Your task to perform on an android device: Do I have any events this weekend? Image 0: 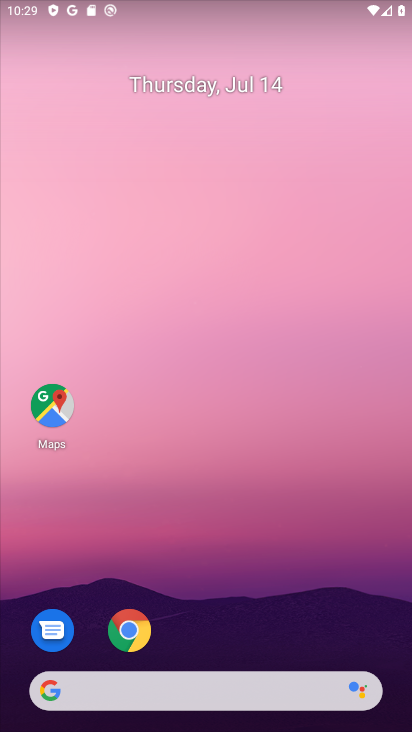
Step 0: drag from (286, 247) to (23, 69)
Your task to perform on an android device: Do I have any events this weekend? Image 1: 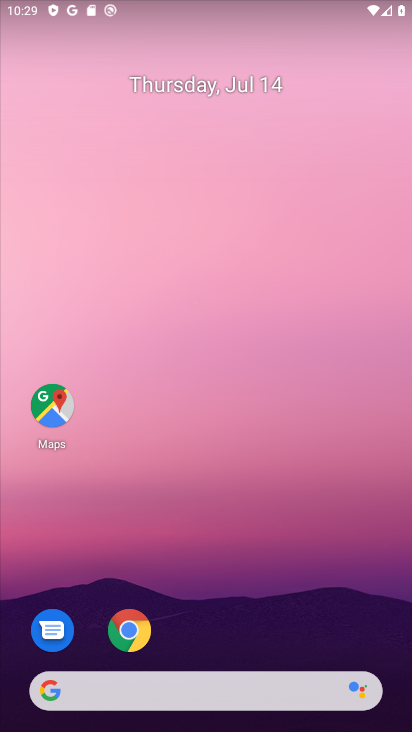
Step 1: drag from (287, 578) to (216, 0)
Your task to perform on an android device: Do I have any events this weekend? Image 2: 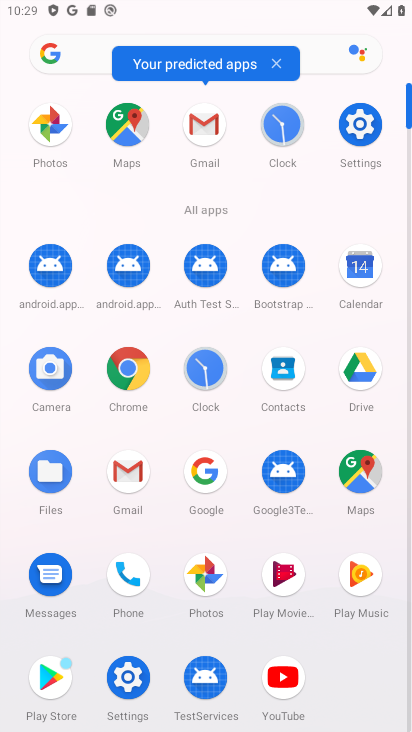
Step 2: click (352, 272)
Your task to perform on an android device: Do I have any events this weekend? Image 3: 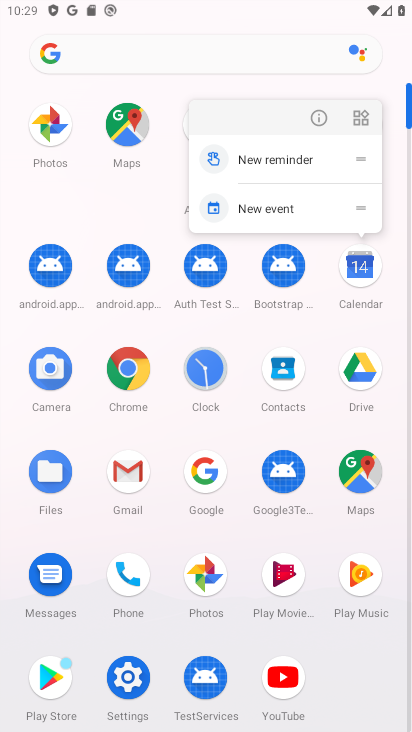
Step 3: click (352, 278)
Your task to perform on an android device: Do I have any events this weekend? Image 4: 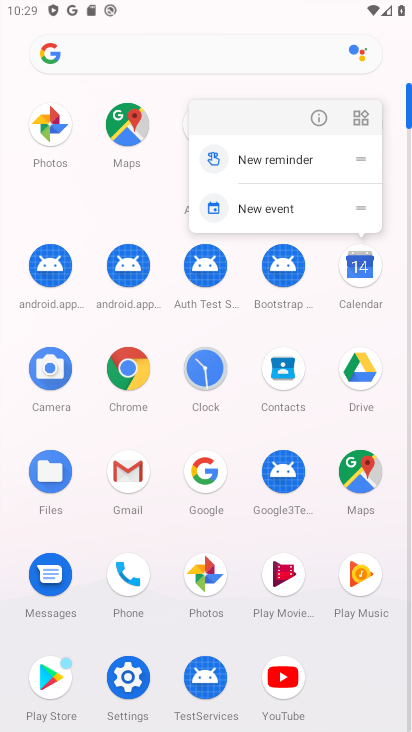
Step 4: click (359, 280)
Your task to perform on an android device: Do I have any events this weekend? Image 5: 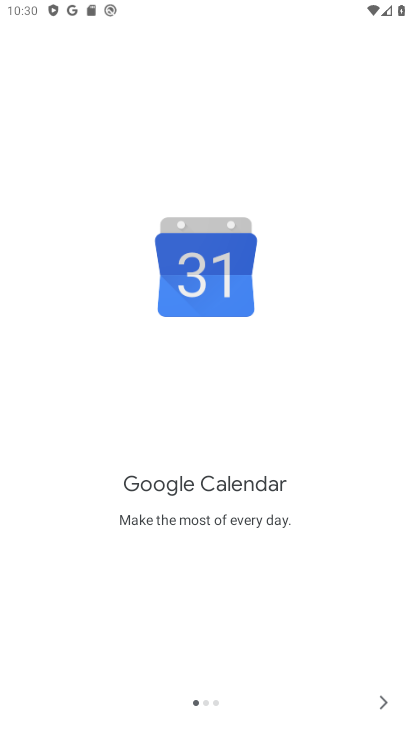
Step 5: click (384, 703)
Your task to perform on an android device: Do I have any events this weekend? Image 6: 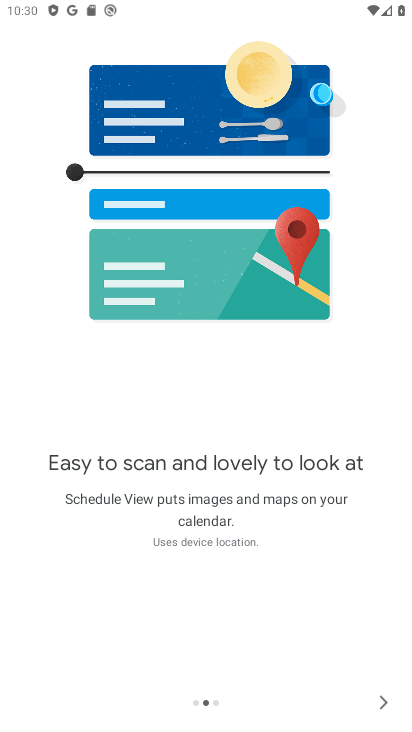
Step 6: click (384, 703)
Your task to perform on an android device: Do I have any events this weekend? Image 7: 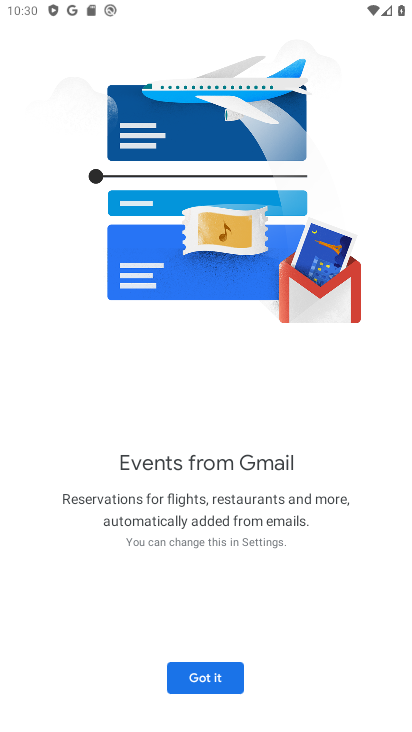
Step 7: click (222, 667)
Your task to perform on an android device: Do I have any events this weekend? Image 8: 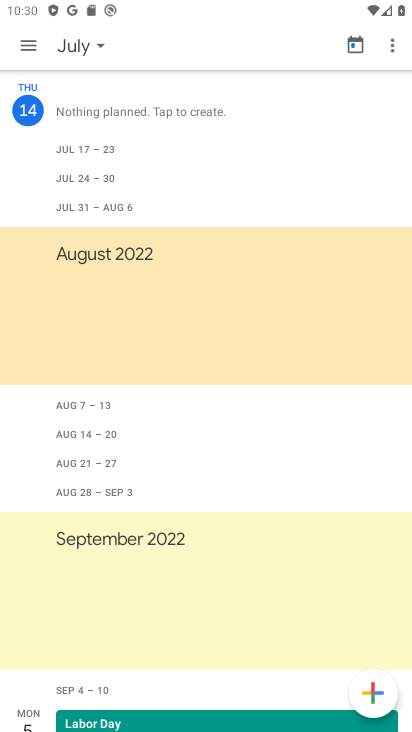
Step 8: click (81, 37)
Your task to perform on an android device: Do I have any events this weekend? Image 9: 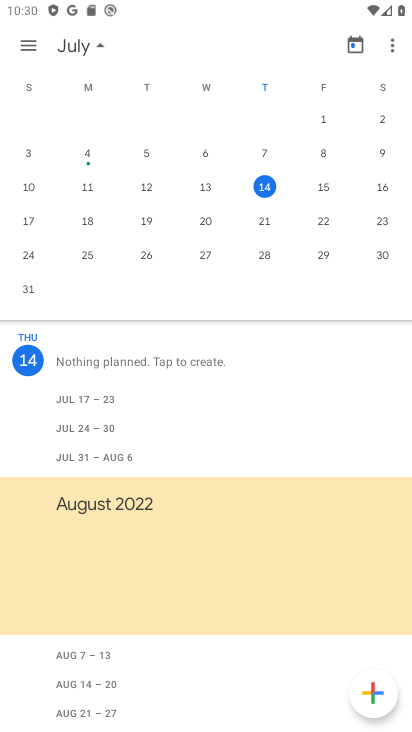
Step 9: task complete